Your task to perform on an android device: Open Google Chrome and open the bookmarks view Image 0: 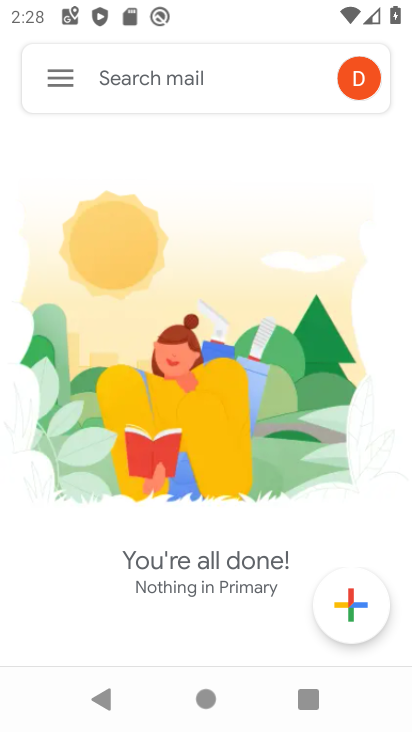
Step 0: press back button
Your task to perform on an android device: Open Google Chrome and open the bookmarks view Image 1: 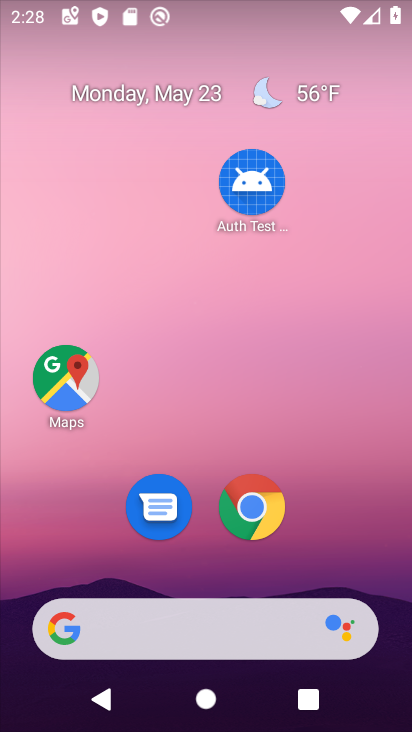
Step 1: drag from (350, 673) to (253, 95)
Your task to perform on an android device: Open Google Chrome and open the bookmarks view Image 2: 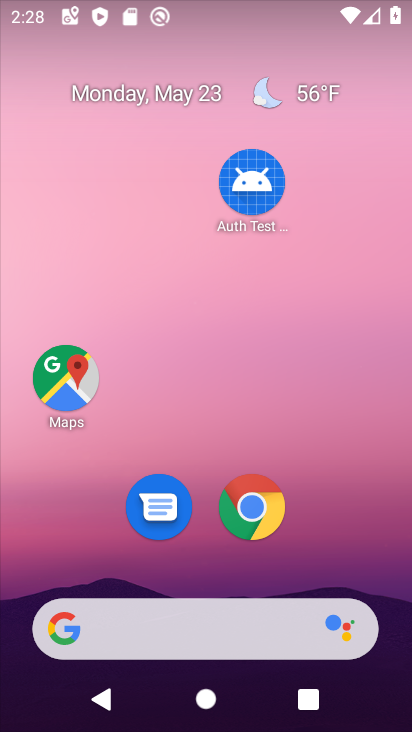
Step 2: drag from (342, 596) to (192, 8)
Your task to perform on an android device: Open Google Chrome and open the bookmarks view Image 3: 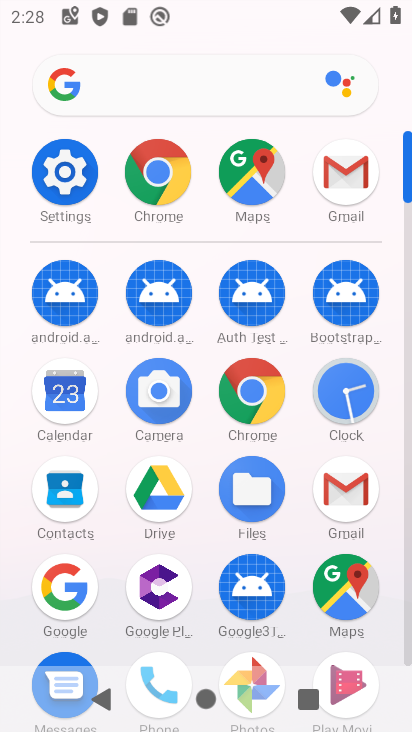
Step 3: click (153, 171)
Your task to perform on an android device: Open Google Chrome and open the bookmarks view Image 4: 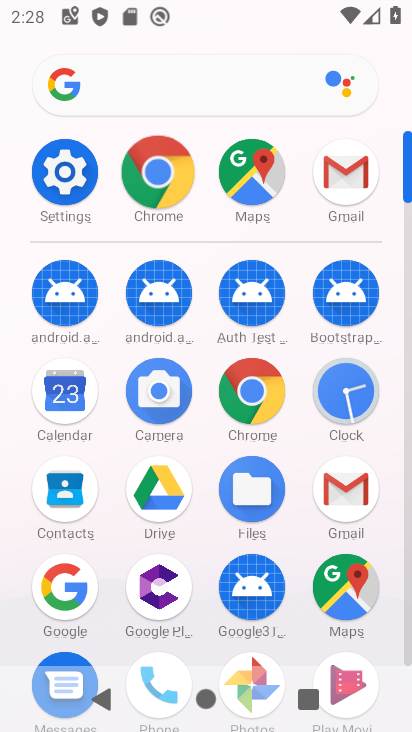
Step 4: click (153, 171)
Your task to perform on an android device: Open Google Chrome and open the bookmarks view Image 5: 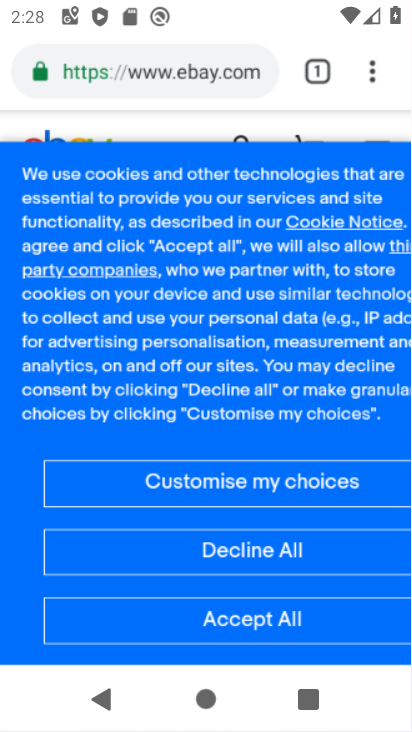
Step 5: click (153, 171)
Your task to perform on an android device: Open Google Chrome and open the bookmarks view Image 6: 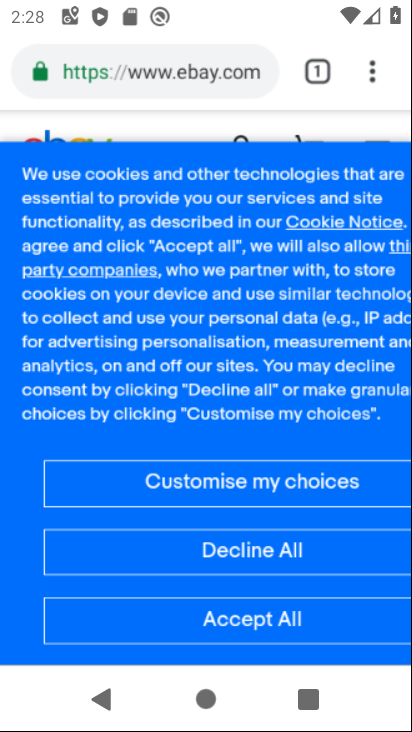
Step 6: click (153, 171)
Your task to perform on an android device: Open Google Chrome and open the bookmarks view Image 7: 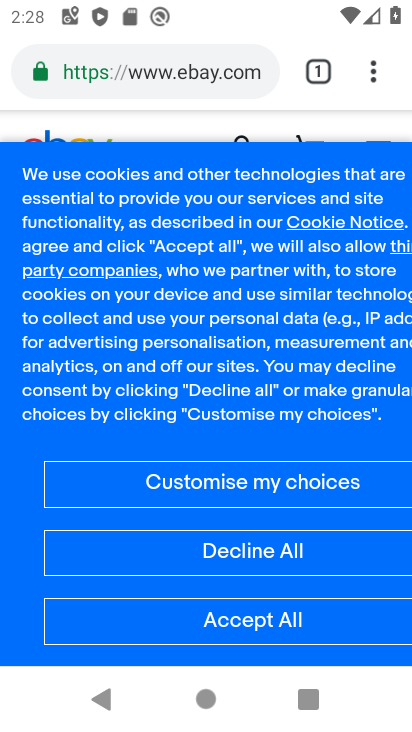
Step 7: click (372, 78)
Your task to perform on an android device: Open Google Chrome and open the bookmarks view Image 8: 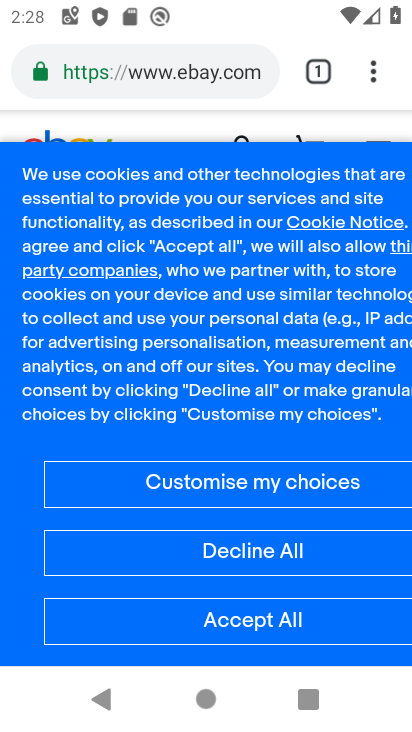
Step 8: click (373, 70)
Your task to perform on an android device: Open Google Chrome and open the bookmarks view Image 9: 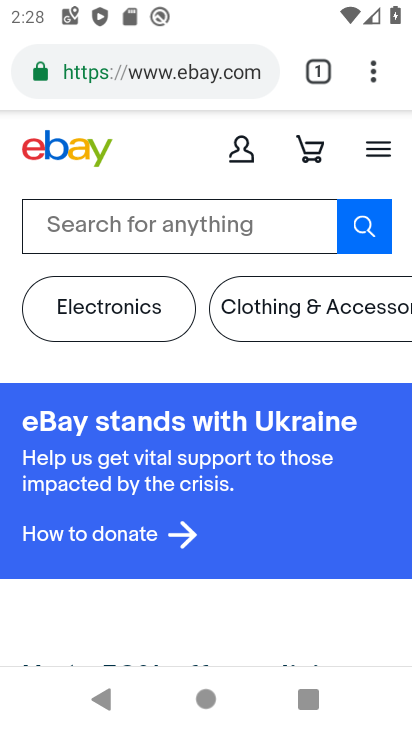
Step 9: press back button
Your task to perform on an android device: Open Google Chrome and open the bookmarks view Image 10: 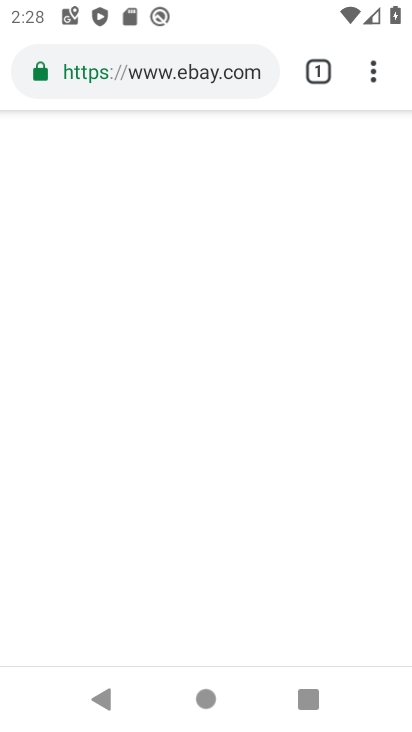
Step 10: press back button
Your task to perform on an android device: Open Google Chrome and open the bookmarks view Image 11: 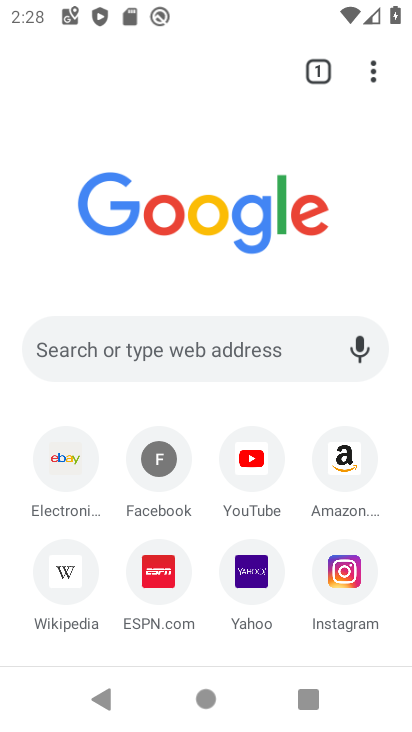
Step 11: press back button
Your task to perform on an android device: Open Google Chrome and open the bookmarks view Image 12: 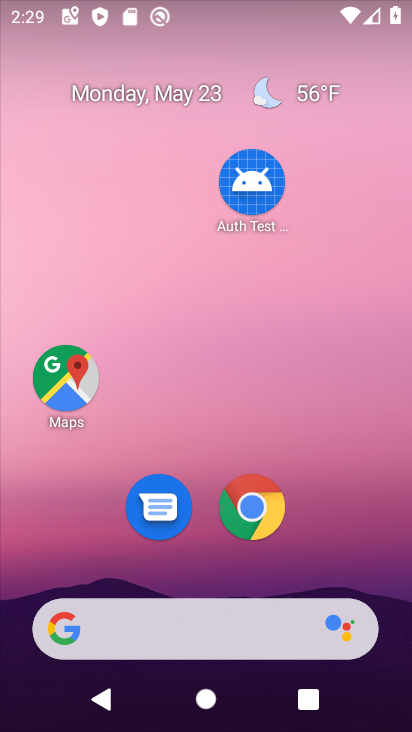
Step 12: drag from (358, 702) to (68, 22)
Your task to perform on an android device: Open Google Chrome and open the bookmarks view Image 13: 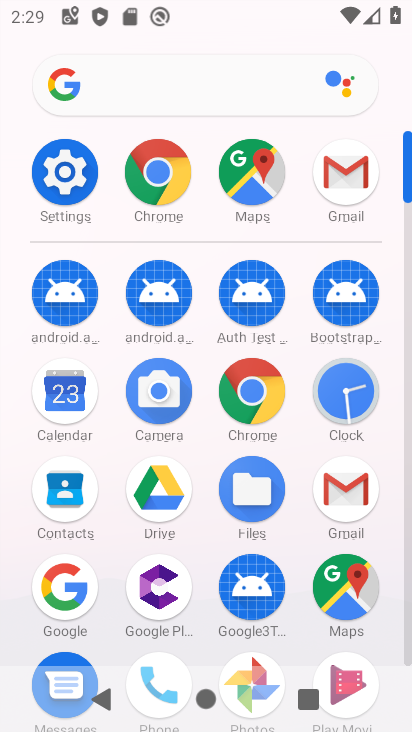
Step 13: click (149, 176)
Your task to perform on an android device: Open Google Chrome and open the bookmarks view Image 14: 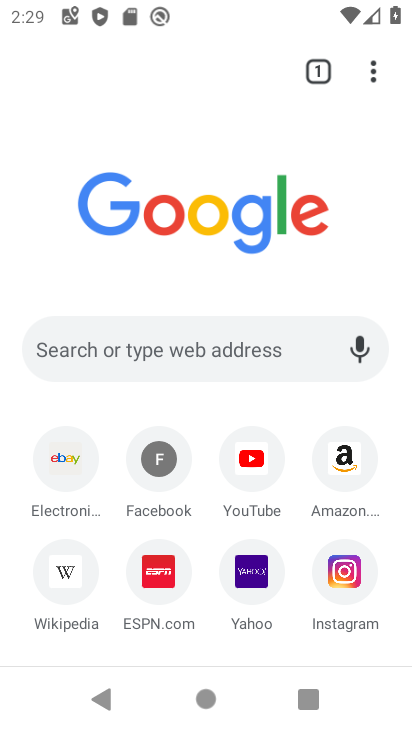
Step 14: click (370, 77)
Your task to perform on an android device: Open Google Chrome and open the bookmarks view Image 15: 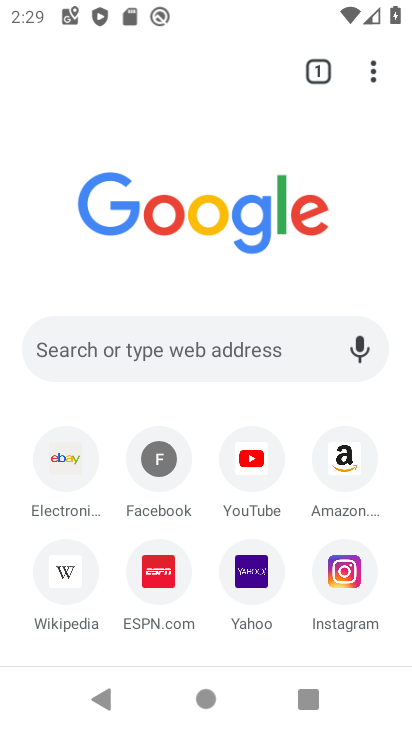
Step 15: drag from (376, 78) to (99, 279)
Your task to perform on an android device: Open Google Chrome and open the bookmarks view Image 16: 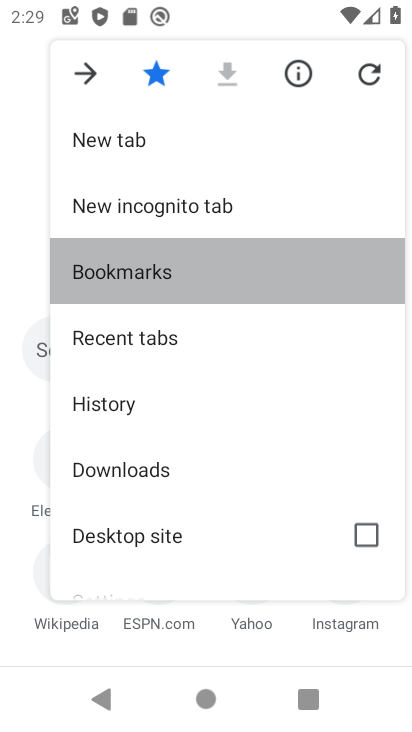
Step 16: click (99, 279)
Your task to perform on an android device: Open Google Chrome and open the bookmarks view Image 17: 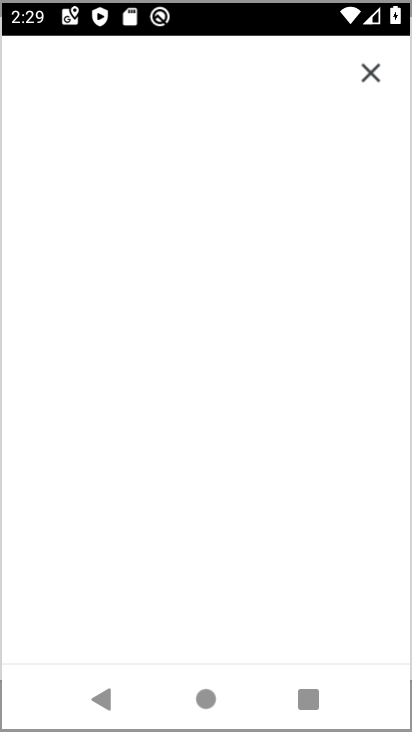
Step 17: click (99, 279)
Your task to perform on an android device: Open Google Chrome and open the bookmarks view Image 18: 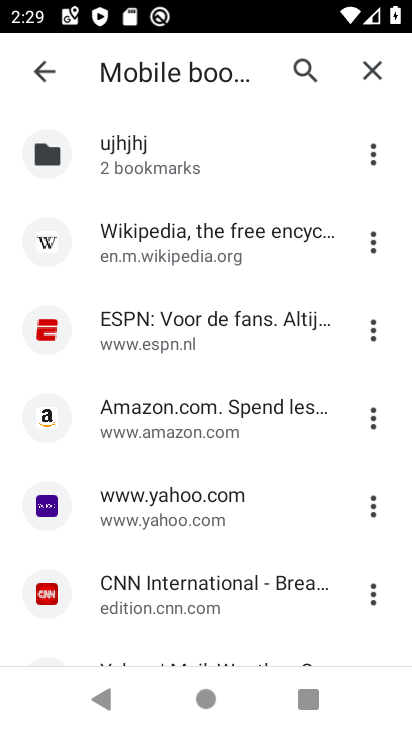
Step 18: click (99, 279)
Your task to perform on an android device: Open Google Chrome and open the bookmarks view Image 19: 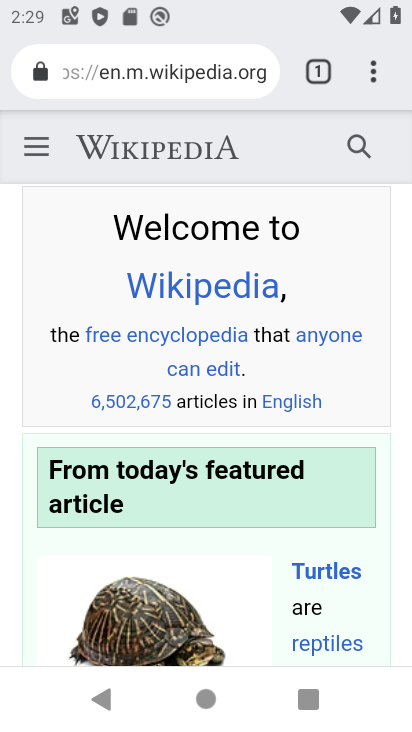
Step 19: task complete